Your task to perform on an android device: View the shopping cart on amazon. Add "logitech g pro" to the cart on amazon Image 0: 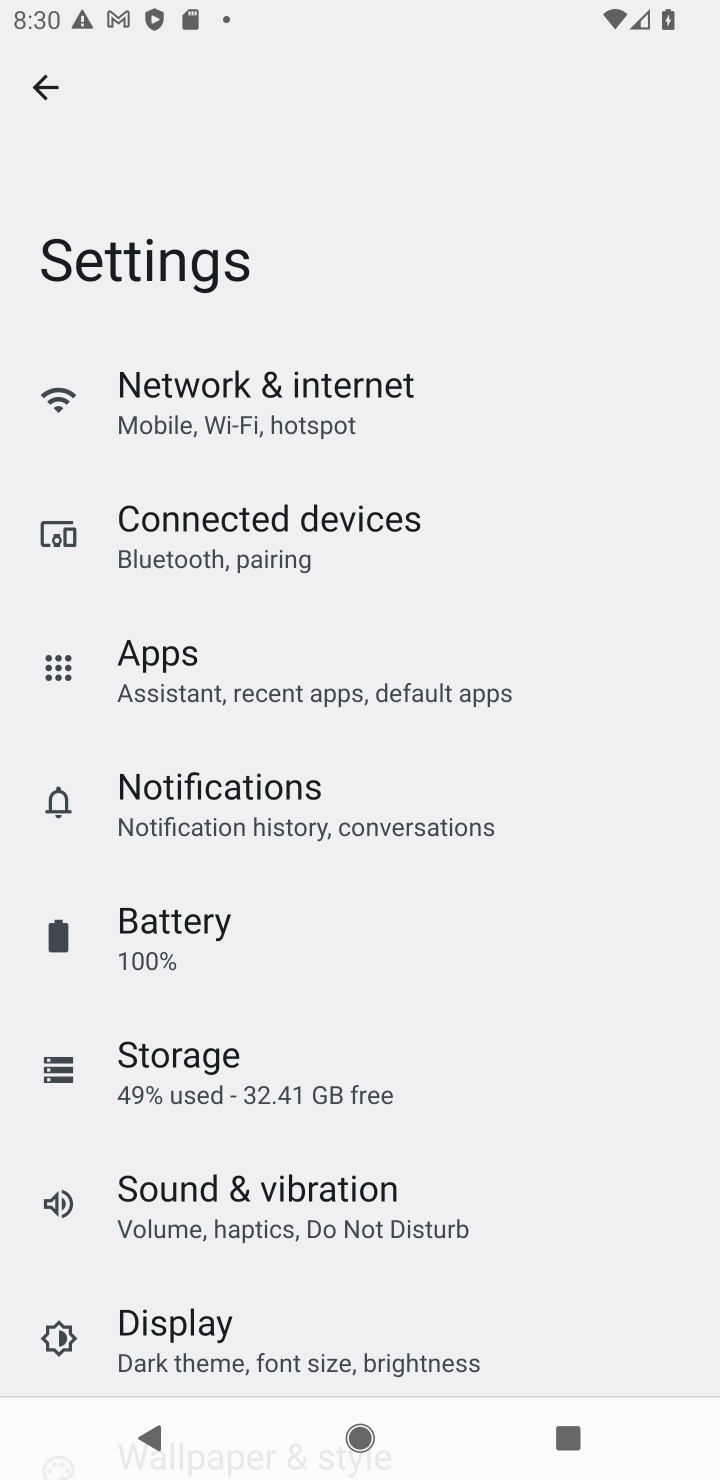
Step 0: press home button
Your task to perform on an android device: View the shopping cart on amazon. Add "logitech g pro" to the cart on amazon Image 1: 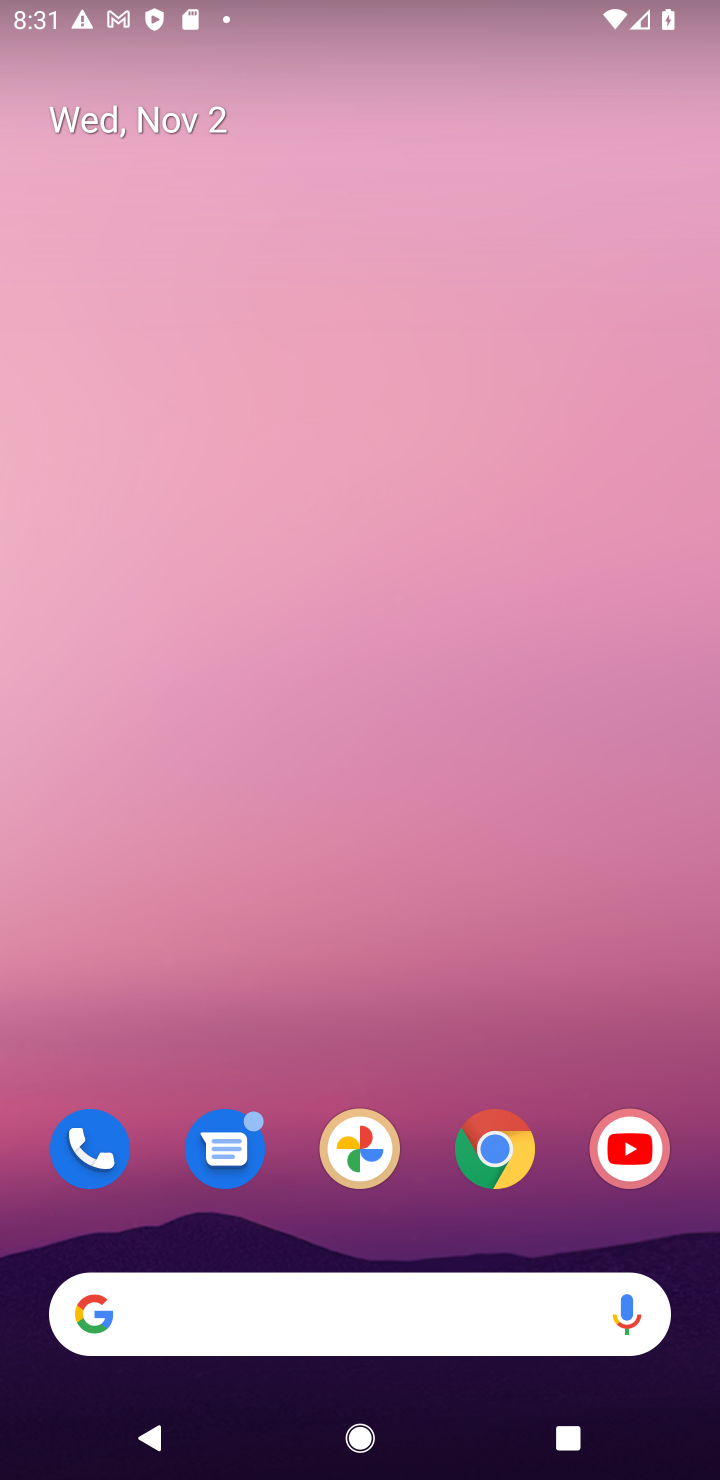
Step 1: drag from (392, 1262) to (470, 142)
Your task to perform on an android device: View the shopping cart on amazon. Add "logitech g pro" to the cart on amazon Image 2: 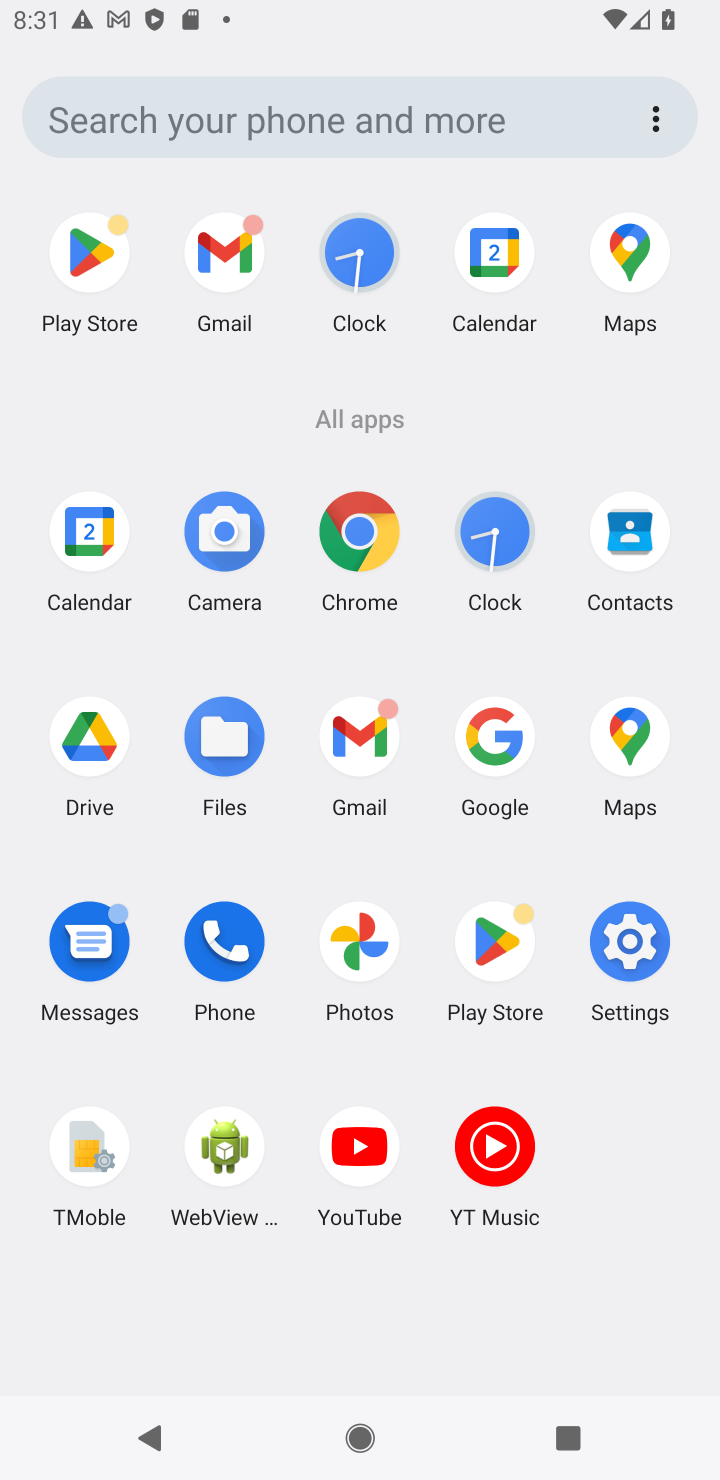
Step 2: click (347, 531)
Your task to perform on an android device: View the shopping cart on amazon. Add "logitech g pro" to the cart on amazon Image 3: 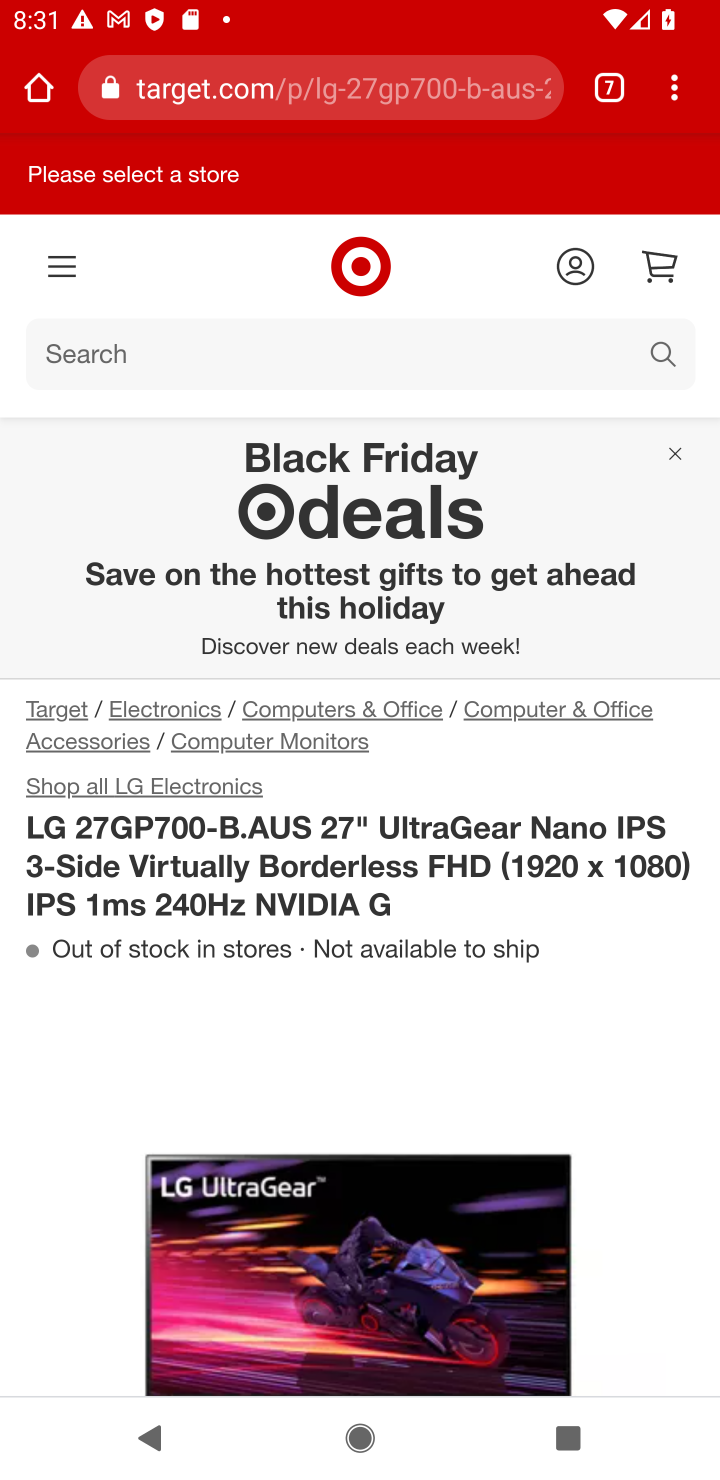
Step 3: drag from (671, 101) to (377, 292)
Your task to perform on an android device: View the shopping cart on amazon. Add "logitech g pro" to the cart on amazon Image 4: 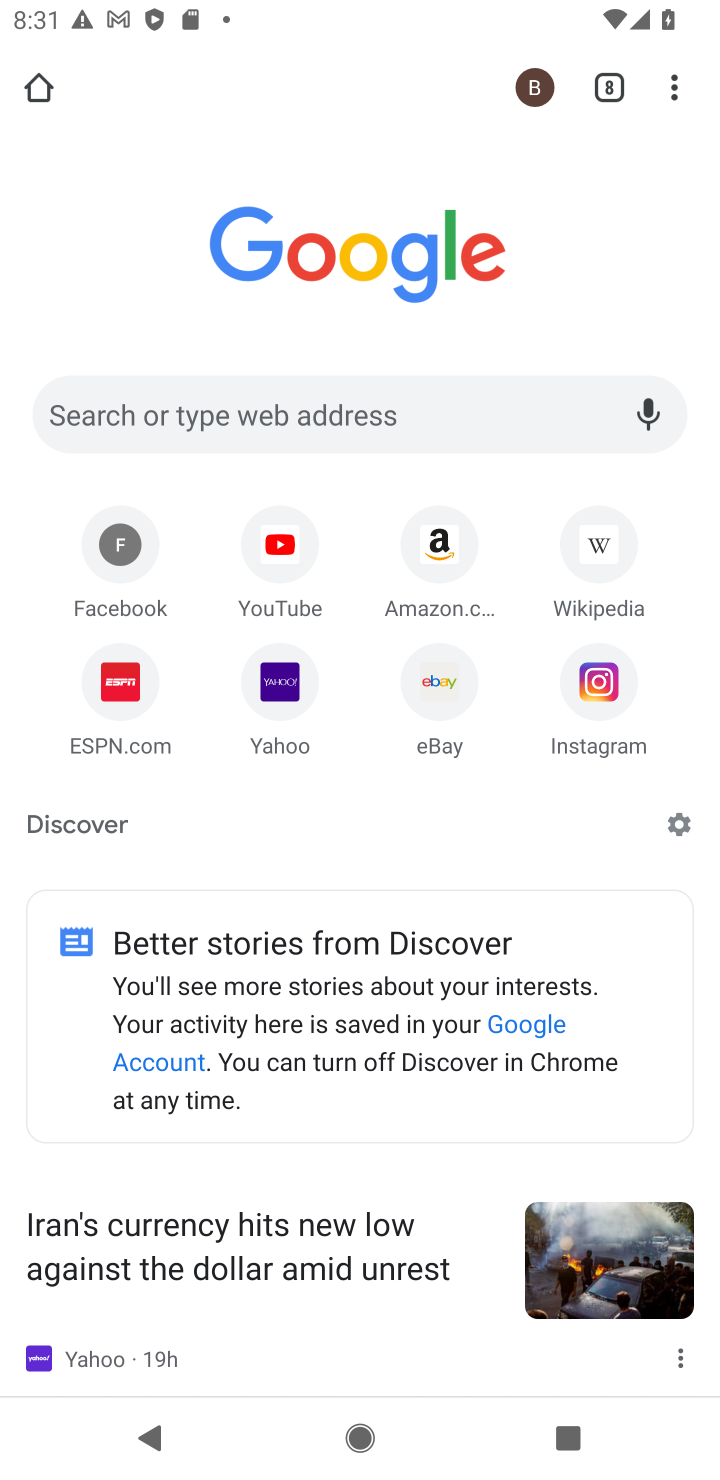
Step 4: click (450, 564)
Your task to perform on an android device: View the shopping cart on amazon. Add "logitech g pro" to the cart on amazon Image 5: 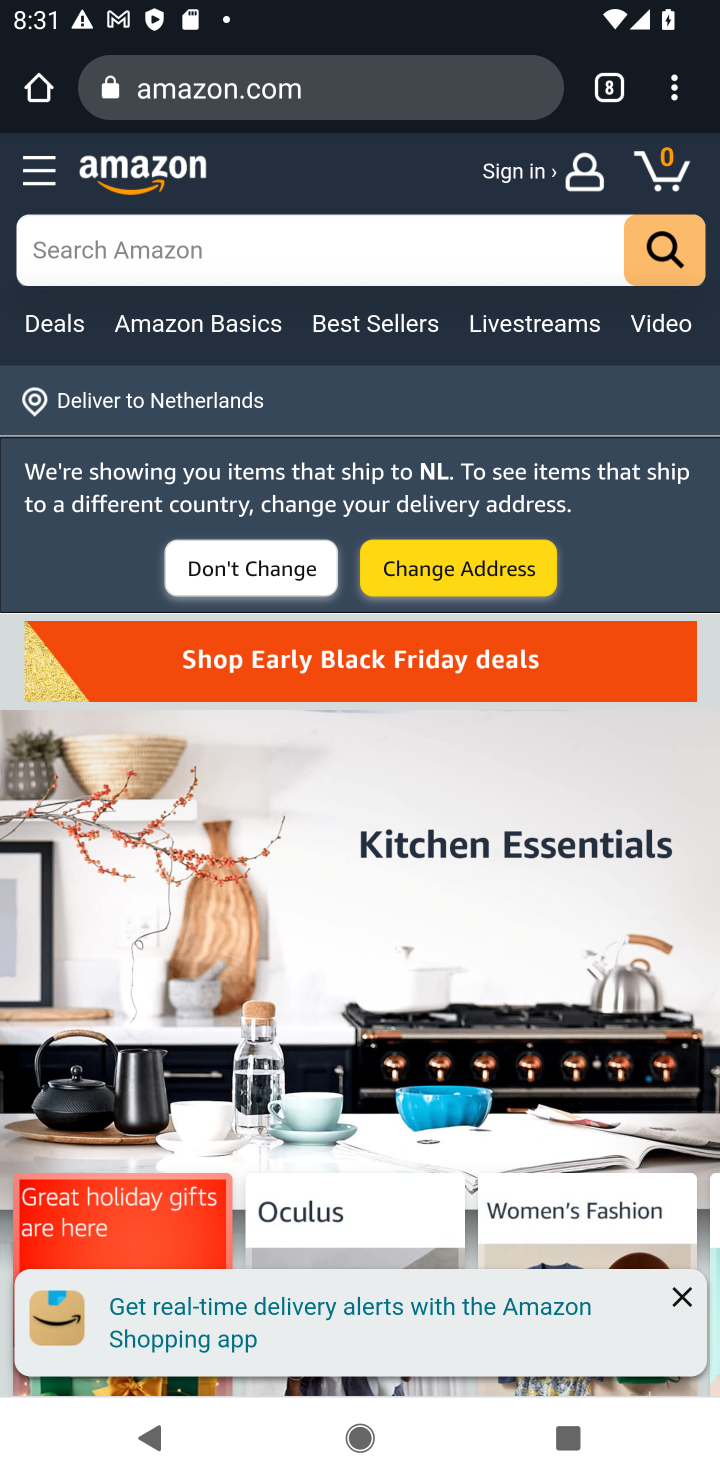
Step 5: click (252, 269)
Your task to perform on an android device: View the shopping cart on amazon. Add "logitech g pro" to the cart on amazon Image 6: 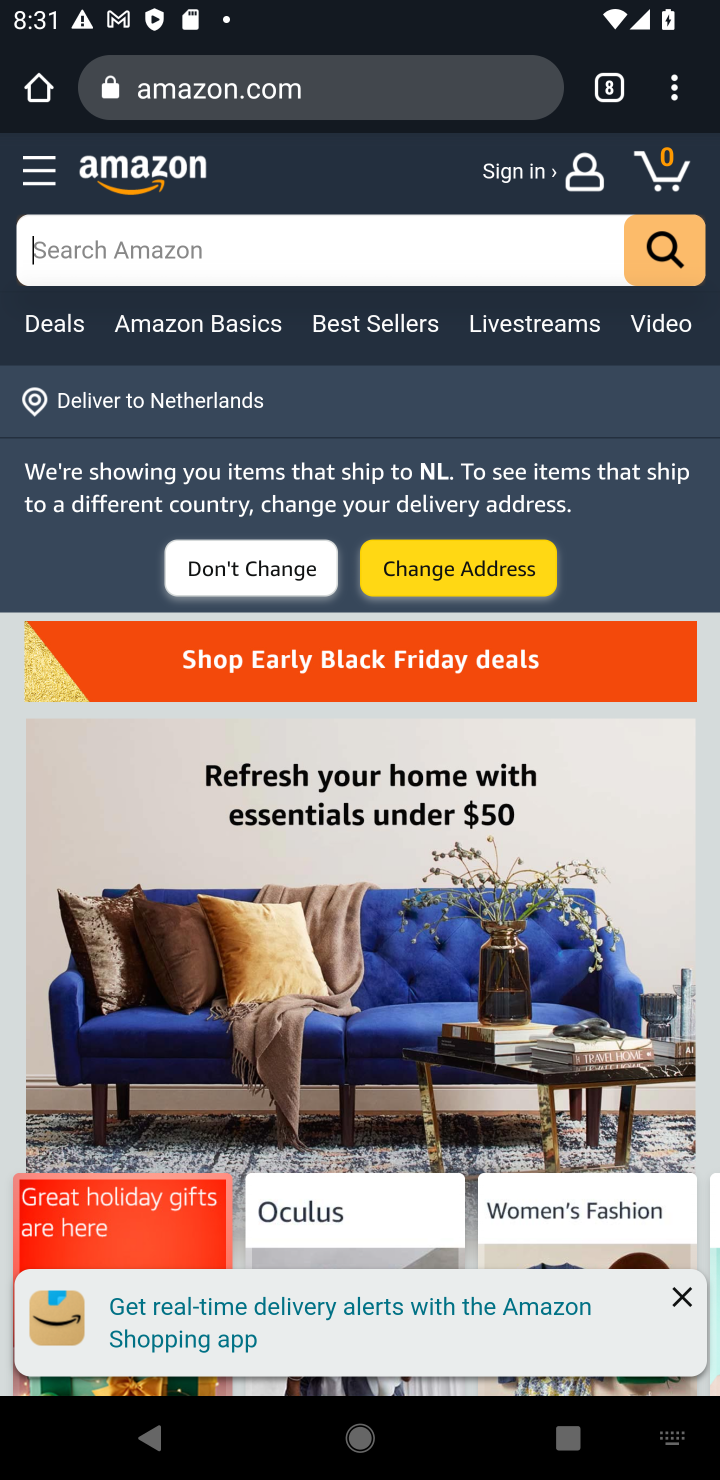
Step 6: type "logitech g pro"
Your task to perform on an android device: View the shopping cart on amazon. Add "logitech g pro" to the cart on amazon Image 7: 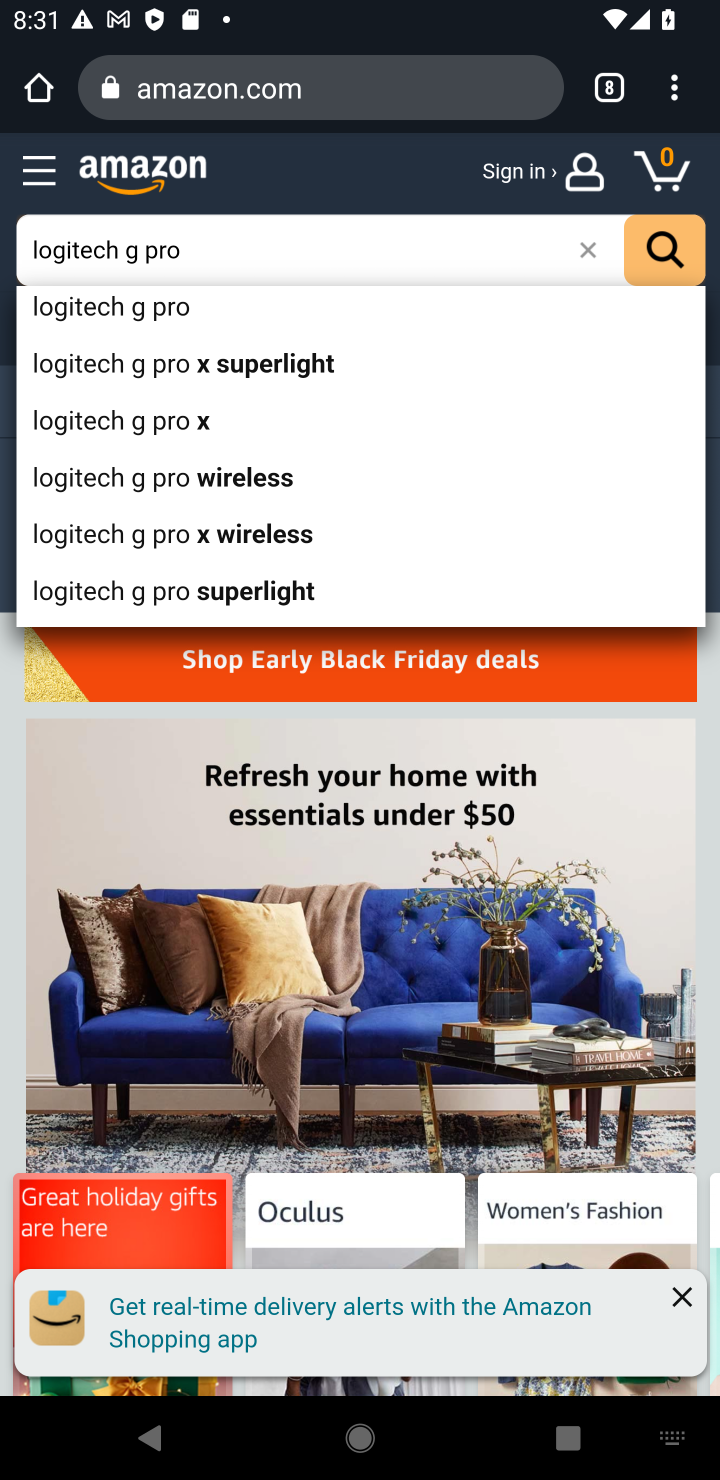
Step 7: click (173, 304)
Your task to perform on an android device: View the shopping cart on amazon. Add "logitech g pro" to the cart on amazon Image 8: 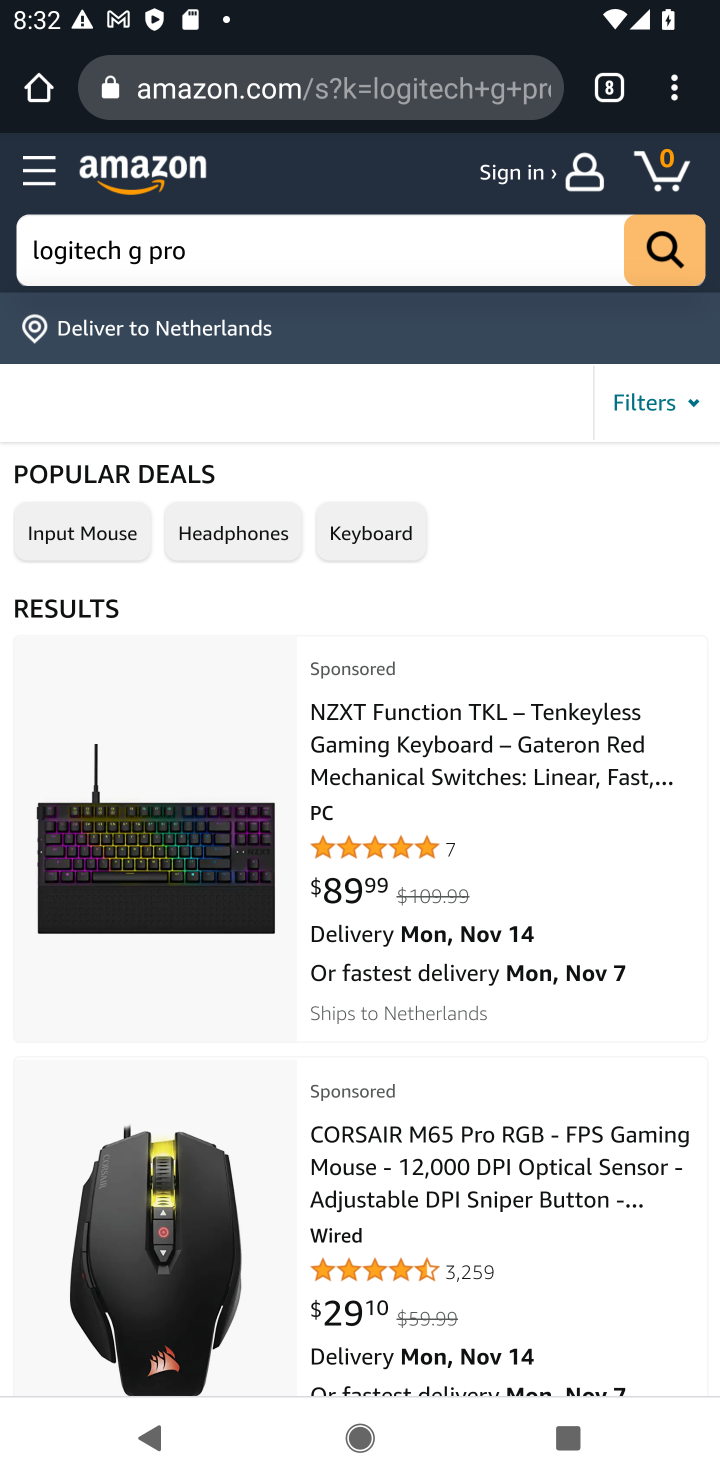
Step 8: click (410, 756)
Your task to perform on an android device: View the shopping cart on amazon. Add "logitech g pro" to the cart on amazon Image 9: 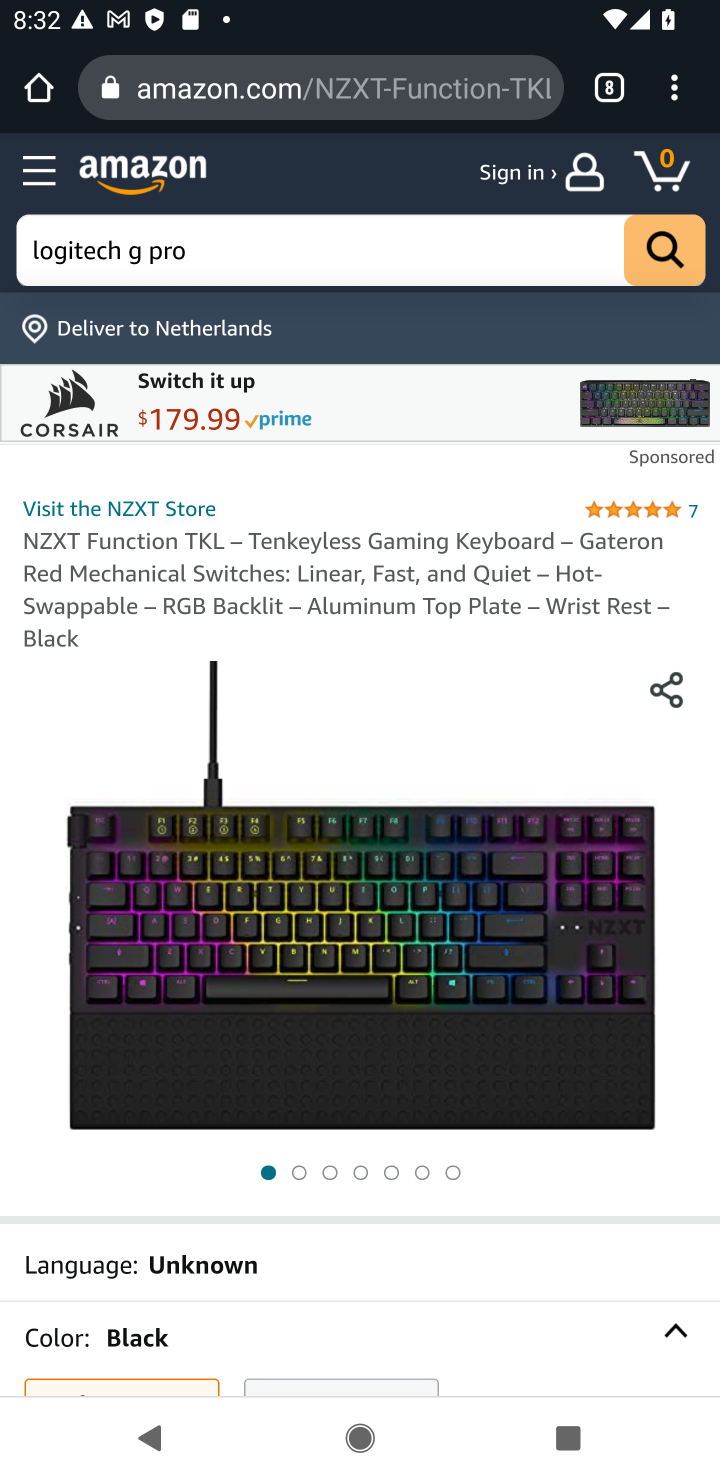
Step 9: drag from (349, 1371) to (355, 802)
Your task to perform on an android device: View the shopping cart on amazon. Add "logitech g pro" to the cart on amazon Image 10: 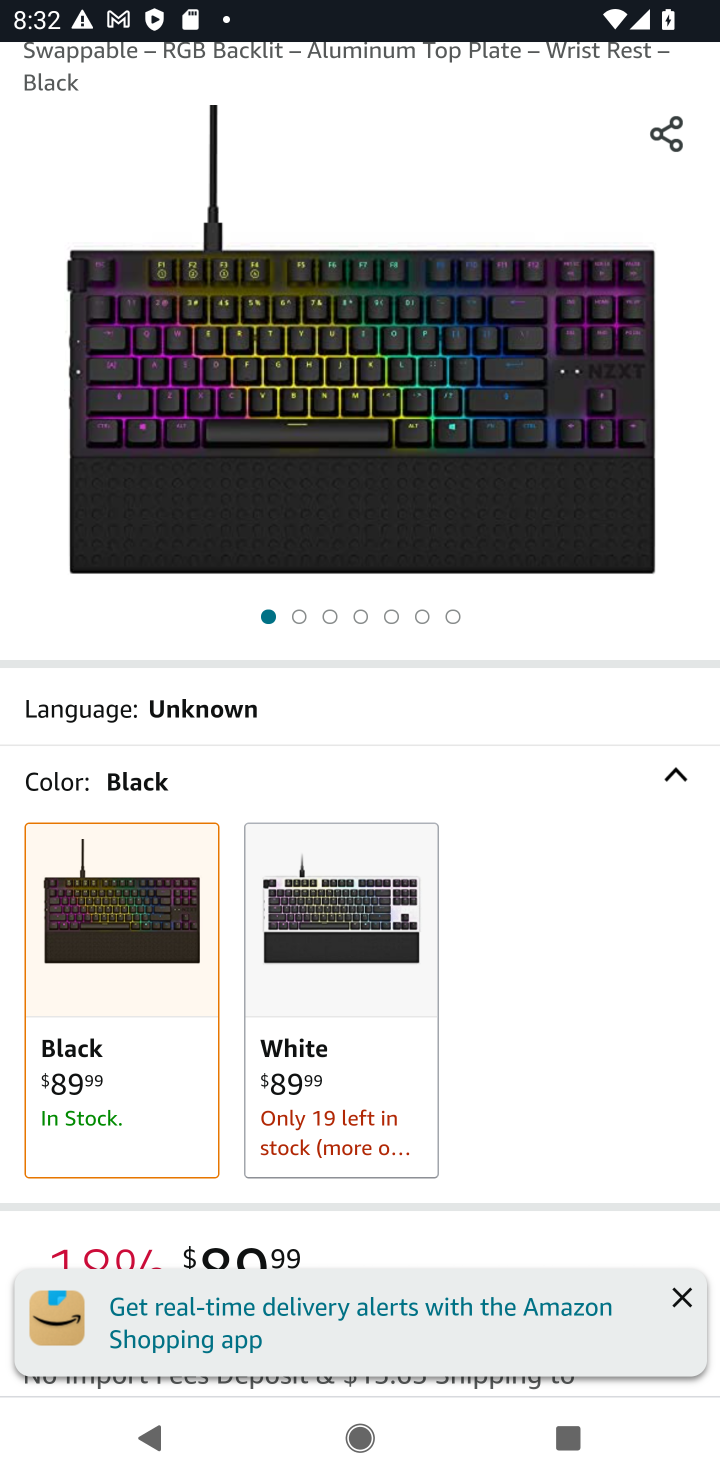
Step 10: drag from (365, 1272) to (341, 625)
Your task to perform on an android device: View the shopping cart on amazon. Add "logitech g pro" to the cart on amazon Image 11: 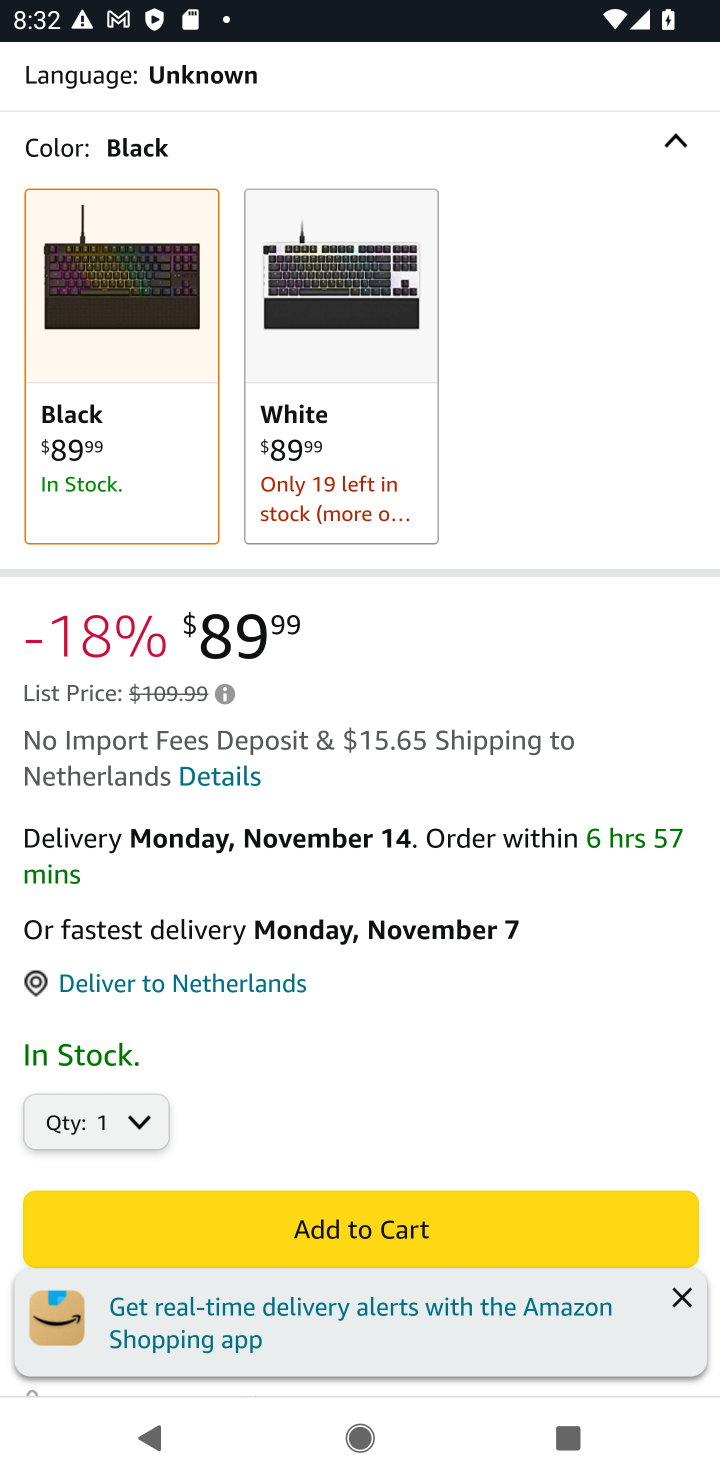
Step 11: click (314, 1226)
Your task to perform on an android device: View the shopping cart on amazon. Add "logitech g pro" to the cart on amazon Image 12: 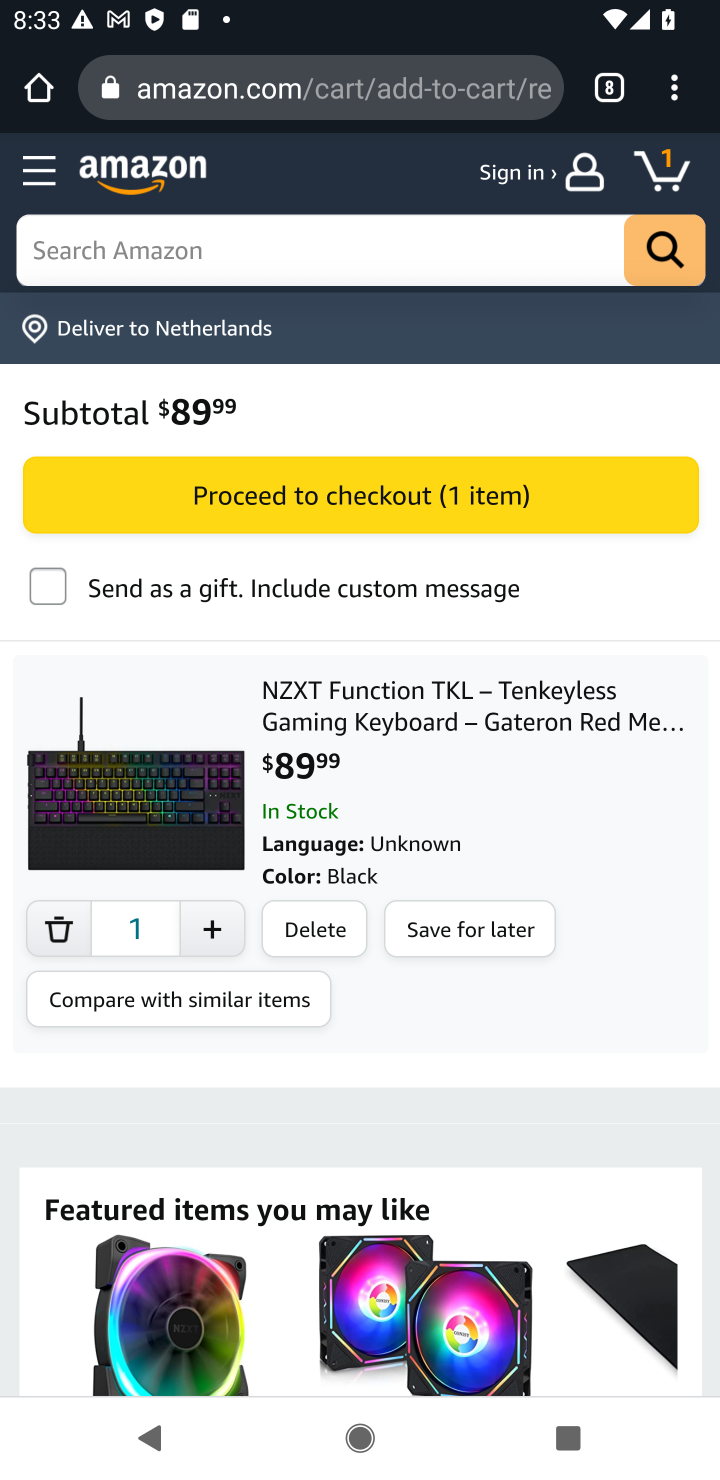
Step 12: task complete